Your task to perform on an android device: allow notifications from all sites in the chrome app Image 0: 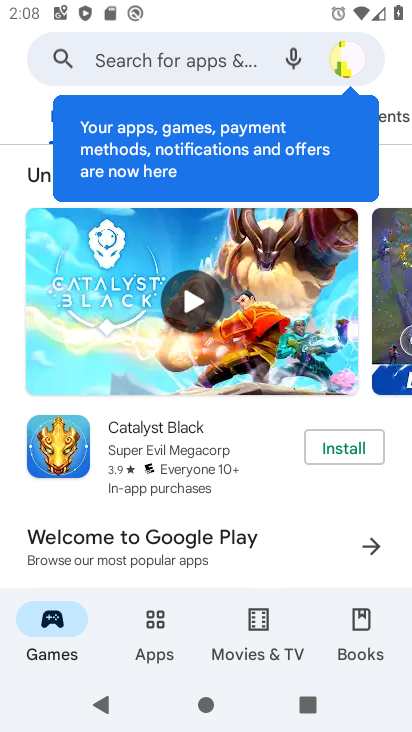
Step 0: press home button
Your task to perform on an android device: allow notifications from all sites in the chrome app Image 1: 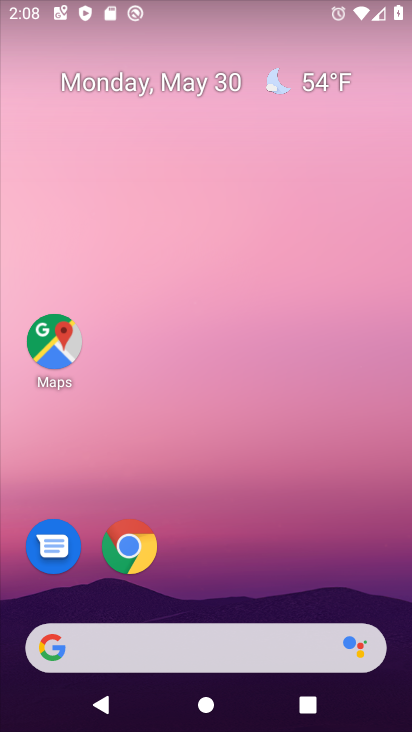
Step 1: click (130, 539)
Your task to perform on an android device: allow notifications from all sites in the chrome app Image 2: 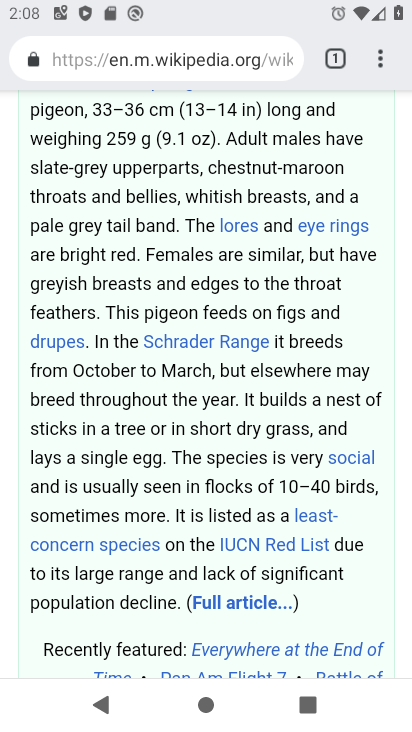
Step 2: click (291, 393)
Your task to perform on an android device: allow notifications from all sites in the chrome app Image 3: 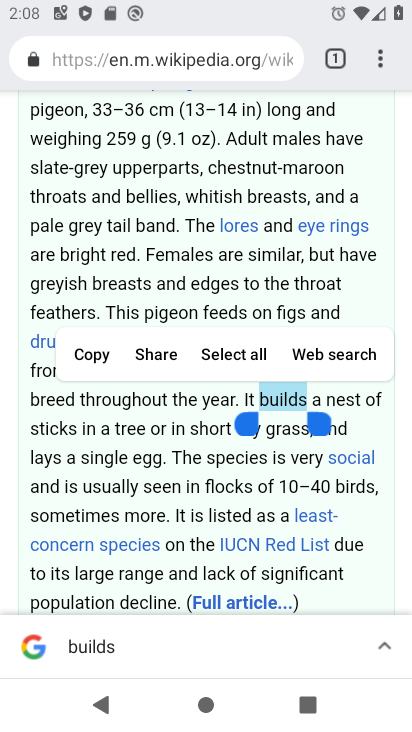
Step 3: click (379, 54)
Your task to perform on an android device: allow notifications from all sites in the chrome app Image 4: 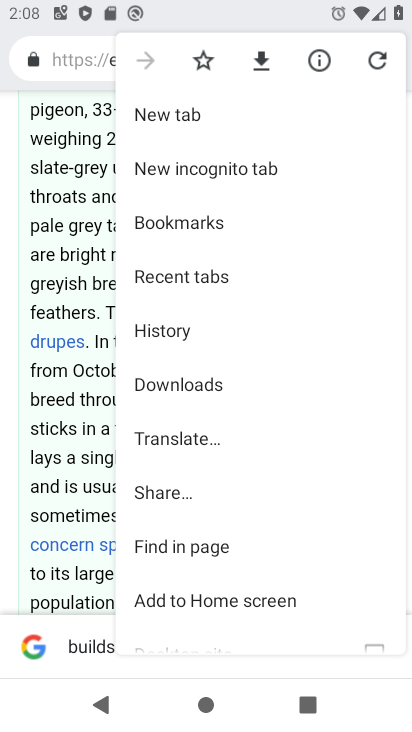
Step 4: drag from (224, 571) to (249, 220)
Your task to perform on an android device: allow notifications from all sites in the chrome app Image 5: 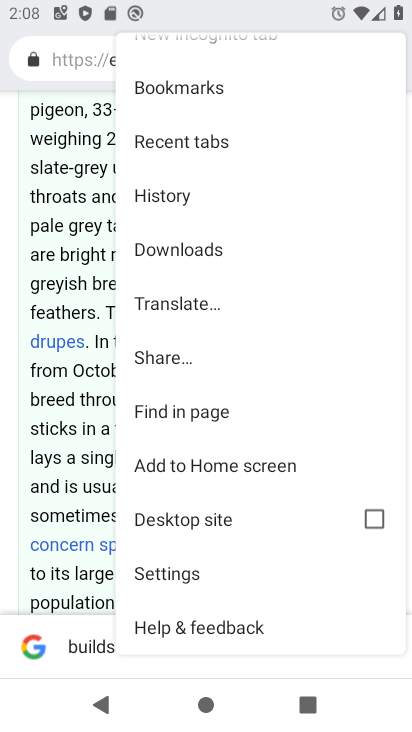
Step 5: click (210, 572)
Your task to perform on an android device: allow notifications from all sites in the chrome app Image 6: 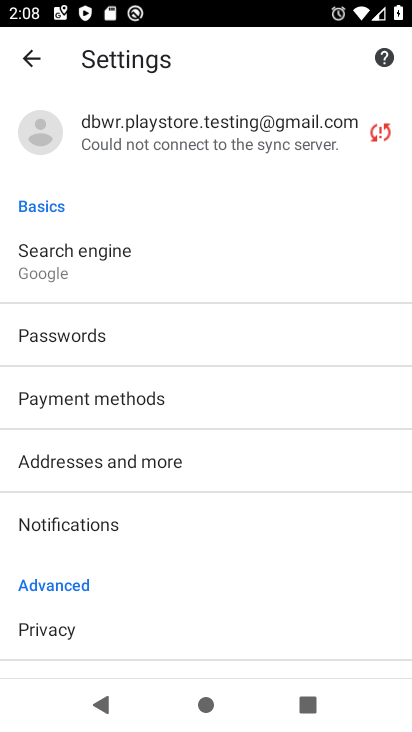
Step 6: drag from (148, 599) to (179, 155)
Your task to perform on an android device: allow notifications from all sites in the chrome app Image 7: 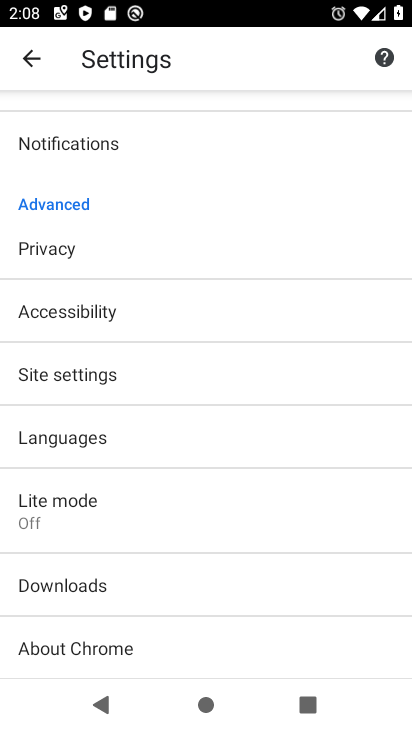
Step 7: click (146, 571)
Your task to perform on an android device: allow notifications from all sites in the chrome app Image 8: 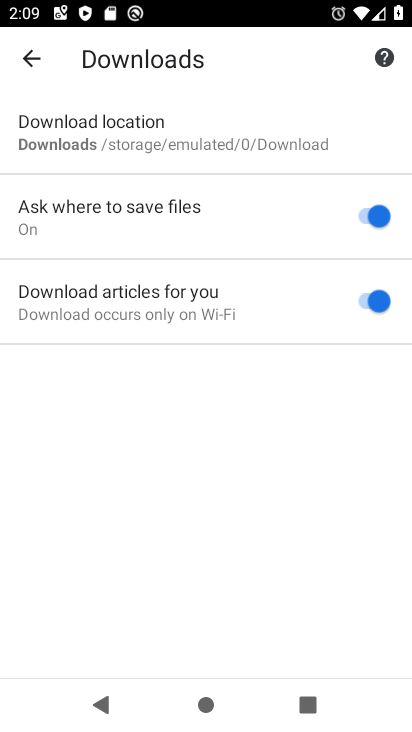
Step 8: click (25, 53)
Your task to perform on an android device: allow notifications from all sites in the chrome app Image 9: 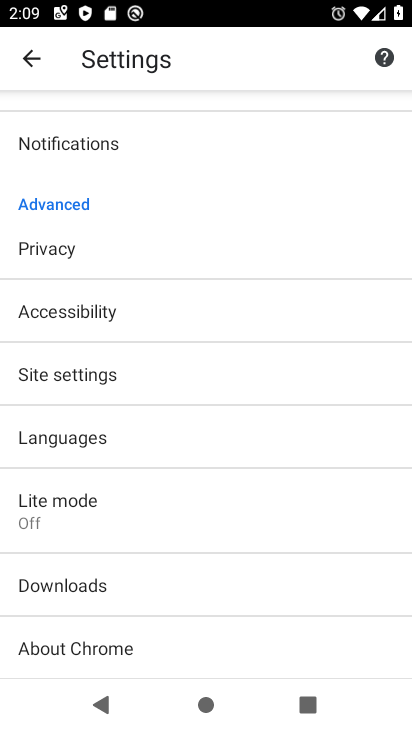
Step 9: click (128, 375)
Your task to perform on an android device: allow notifications from all sites in the chrome app Image 10: 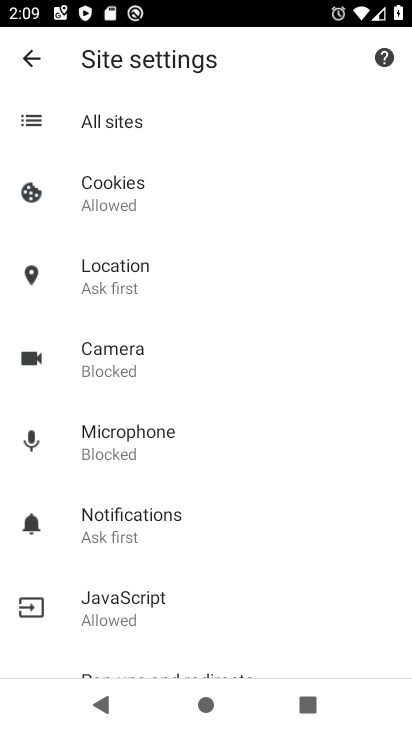
Step 10: click (140, 106)
Your task to perform on an android device: allow notifications from all sites in the chrome app Image 11: 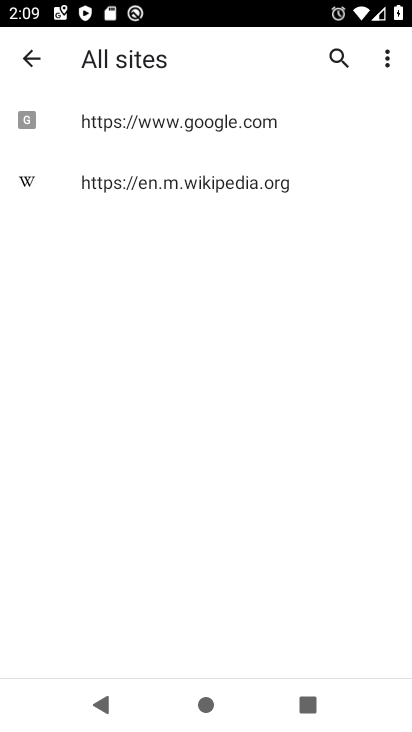
Step 11: click (129, 125)
Your task to perform on an android device: allow notifications from all sites in the chrome app Image 12: 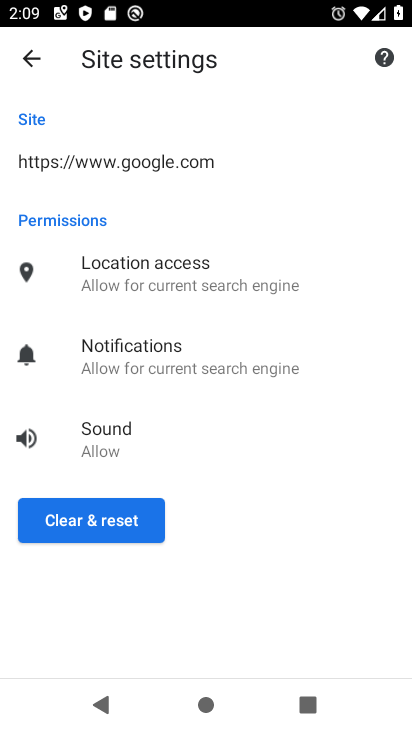
Step 12: click (27, 54)
Your task to perform on an android device: allow notifications from all sites in the chrome app Image 13: 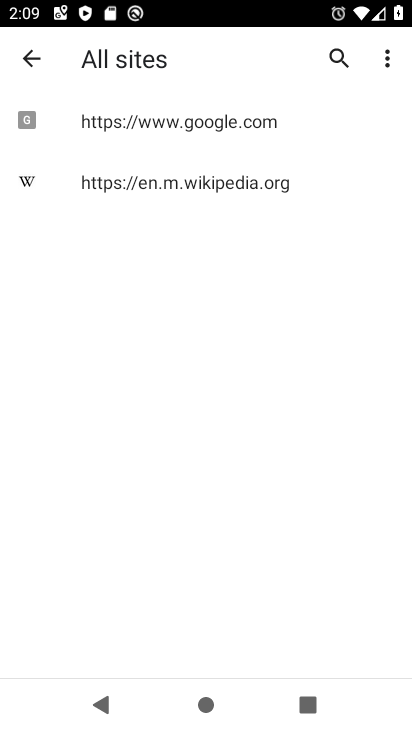
Step 13: click (62, 169)
Your task to perform on an android device: allow notifications from all sites in the chrome app Image 14: 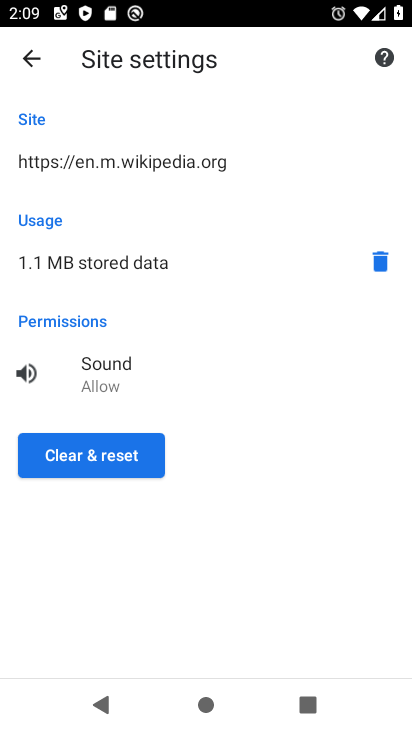
Step 14: task complete